Your task to perform on an android device: Open CNN.com Image 0: 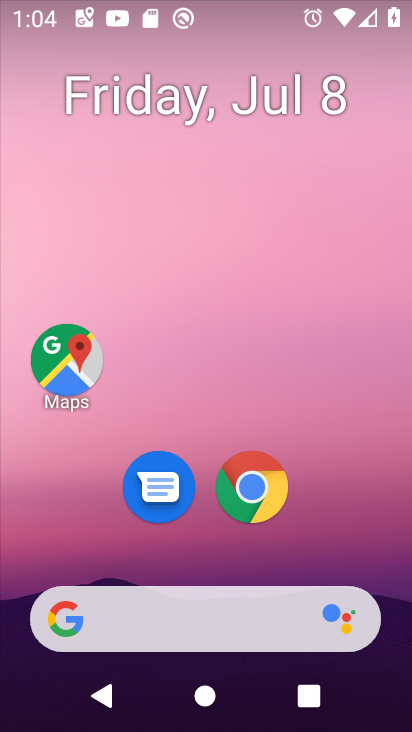
Step 0: drag from (369, 546) to (373, 186)
Your task to perform on an android device: Open CNN.com Image 1: 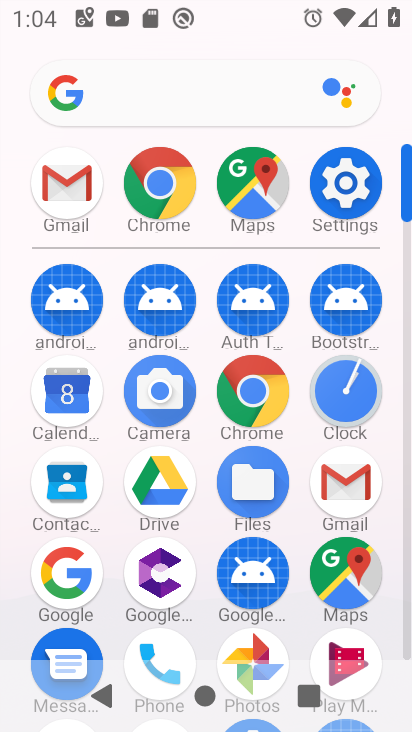
Step 1: click (262, 395)
Your task to perform on an android device: Open CNN.com Image 2: 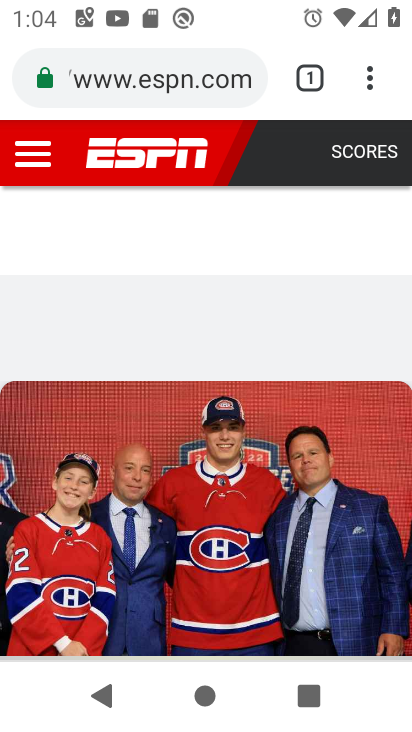
Step 2: click (205, 73)
Your task to perform on an android device: Open CNN.com Image 3: 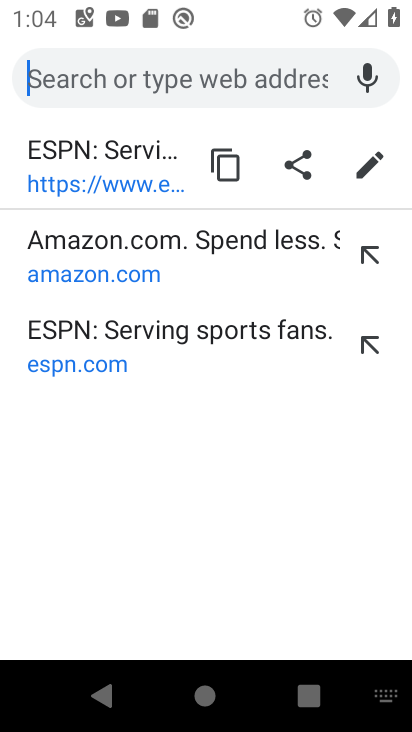
Step 3: type "cnnn.com"
Your task to perform on an android device: Open CNN.com Image 4: 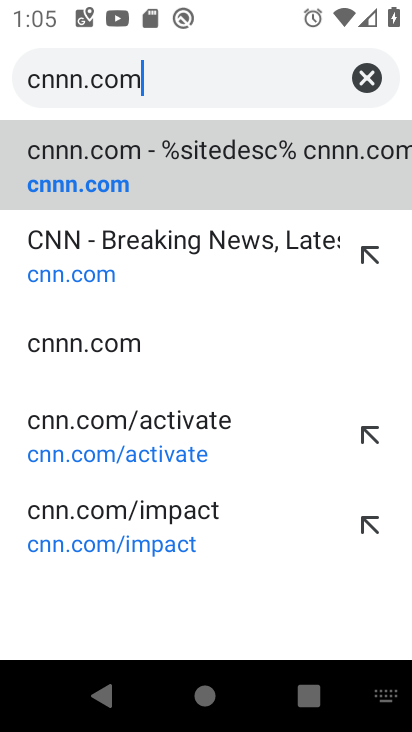
Step 4: click (156, 155)
Your task to perform on an android device: Open CNN.com Image 5: 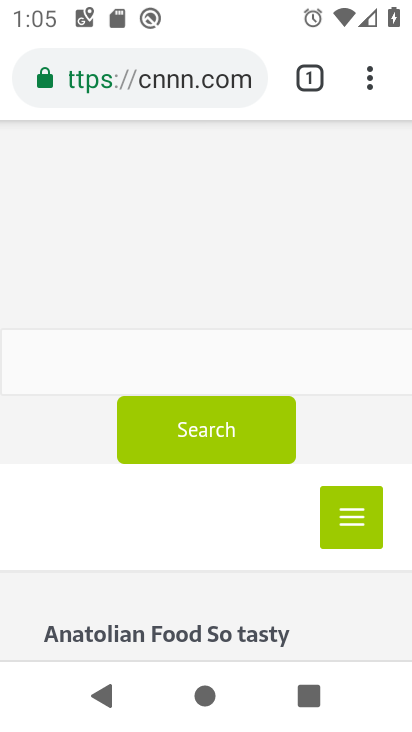
Step 5: task complete